Your task to perform on an android device: Open the web browser Image 0: 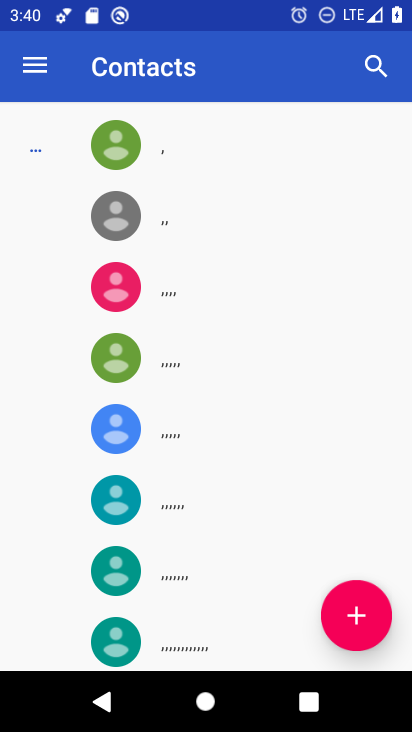
Step 0: press home button
Your task to perform on an android device: Open the web browser Image 1: 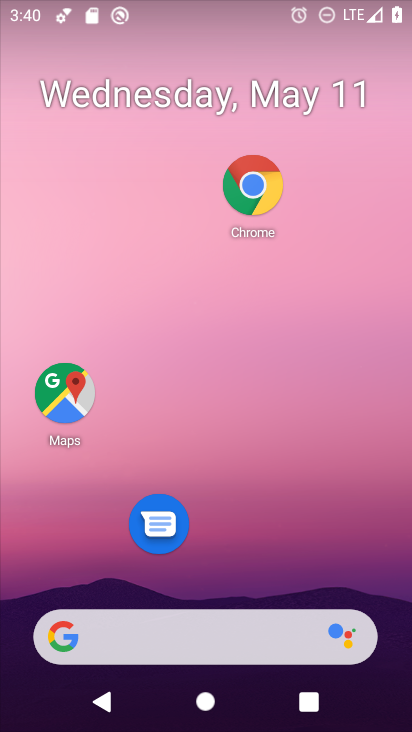
Step 1: click (259, 187)
Your task to perform on an android device: Open the web browser Image 2: 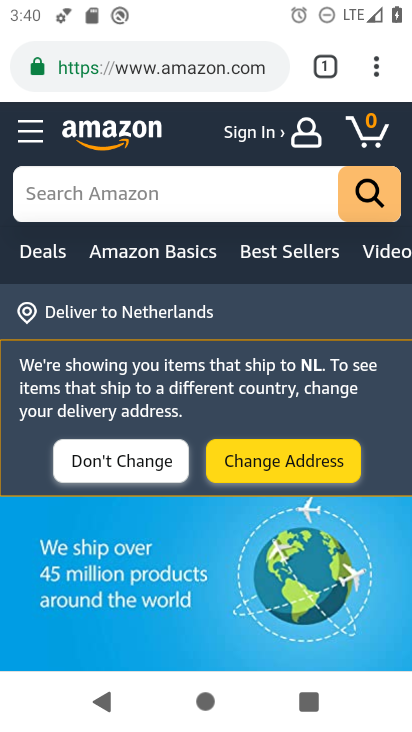
Step 2: click (375, 62)
Your task to perform on an android device: Open the web browser Image 3: 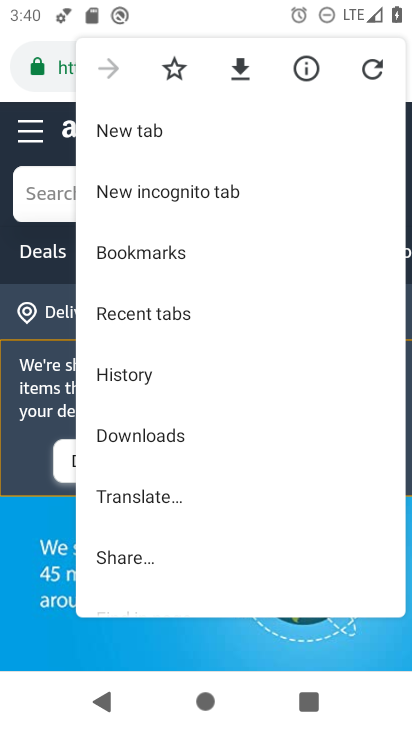
Step 3: click (248, 132)
Your task to perform on an android device: Open the web browser Image 4: 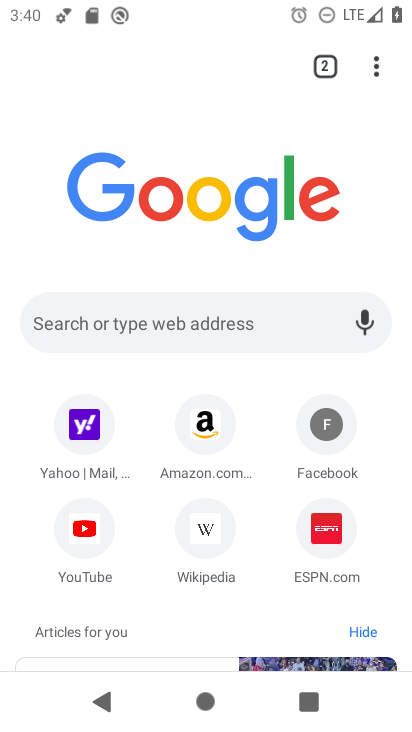
Step 4: click (143, 314)
Your task to perform on an android device: Open the web browser Image 5: 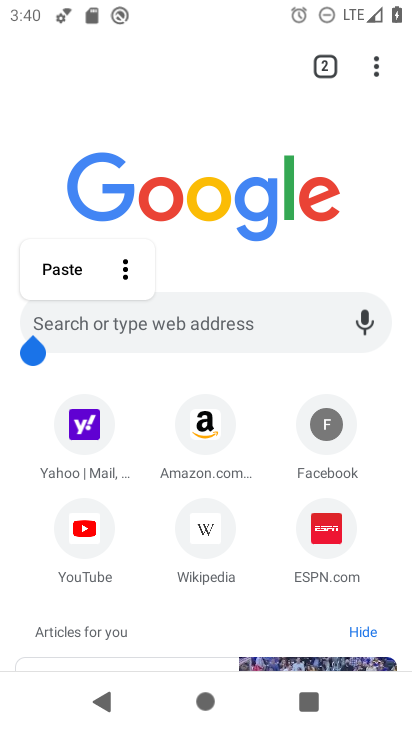
Step 5: click (146, 315)
Your task to perform on an android device: Open the web browser Image 6: 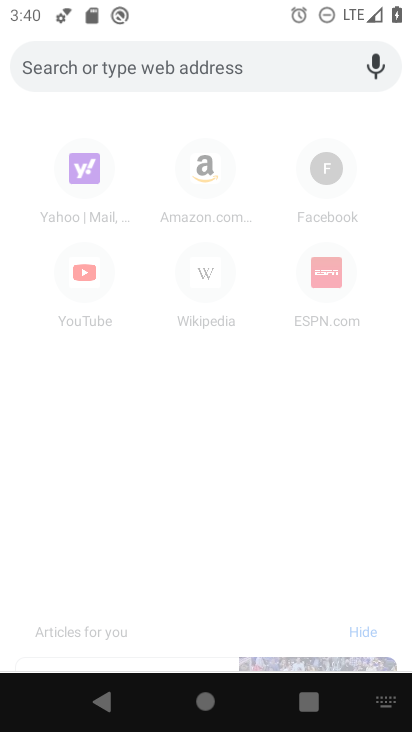
Step 6: click (146, 315)
Your task to perform on an android device: Open the web browser Image 7: 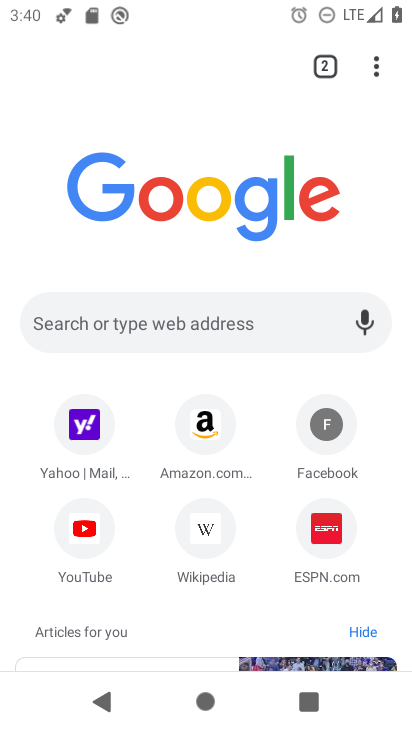
Step 7: click (149, 315)
Your task to perform on an android device: Open the web browser Image 8: 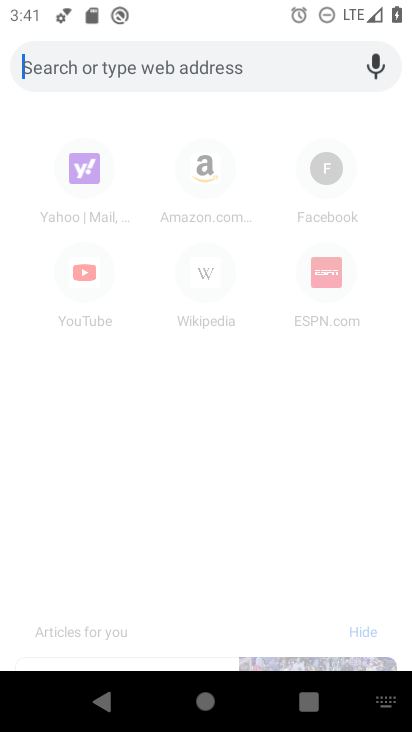
Step 8: task complete